Your task to perform on an android device: Open Google Chrome Image 0: 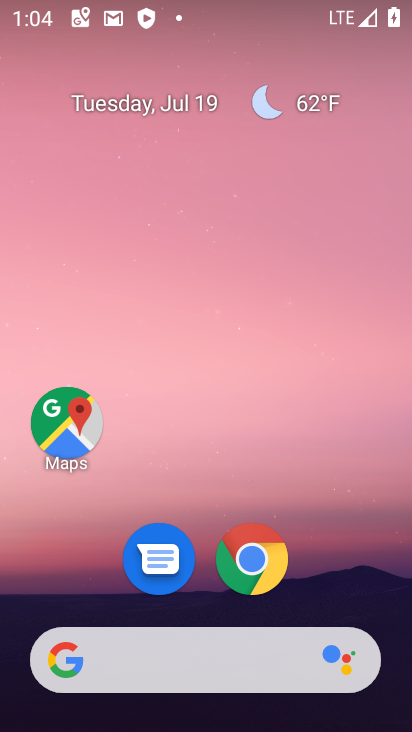
Step 0: drag from (222, 640) to (387, 6)
Your task to perform on an android device: Open Google Chrome Image 1: 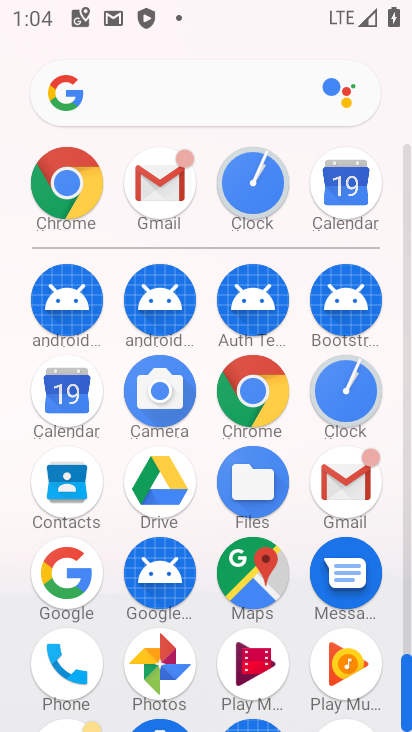
Step 1: click (266, 385)
Your task to perform on an android device: Open Google Chrome Image 2: 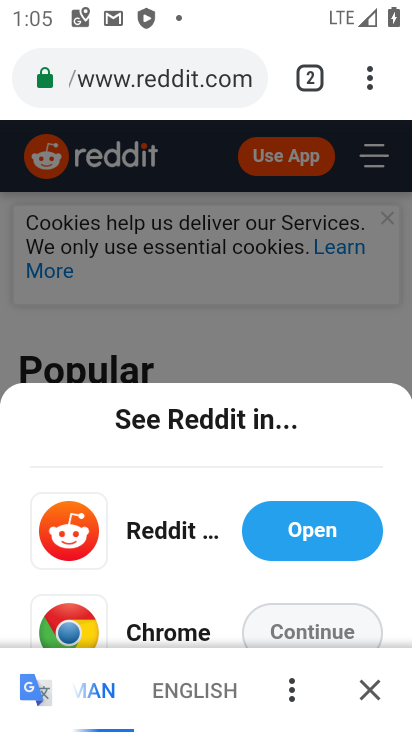
Step 2: task complete